Your task to perform on an android device: turn pop-ups on in chrome Image 0: 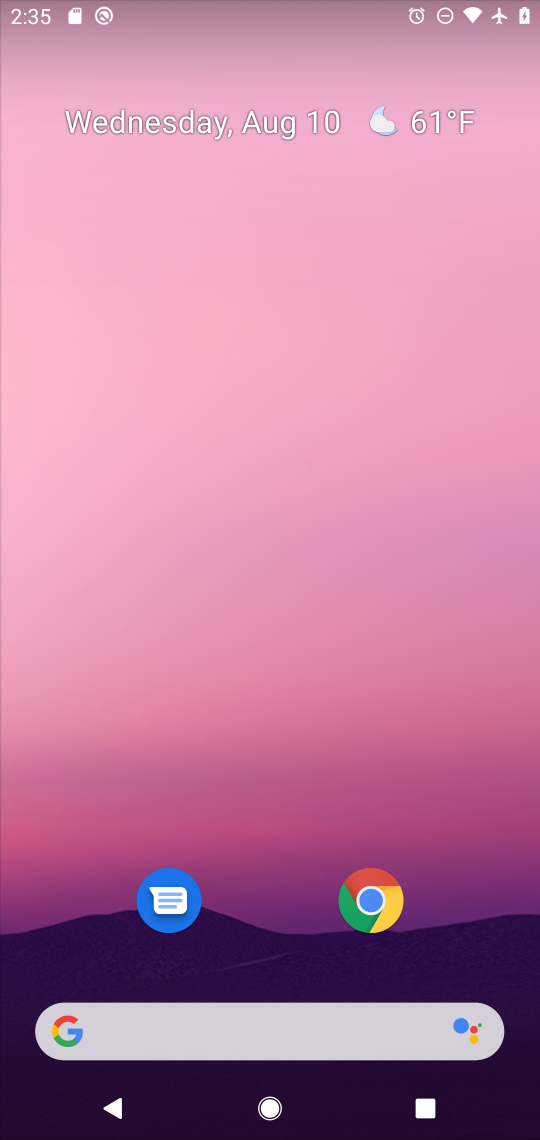
Step 0: drag from (318, 822) to (379, 0)
Your task to perform on an android device: turn pop-ups on in chrome Image 1: 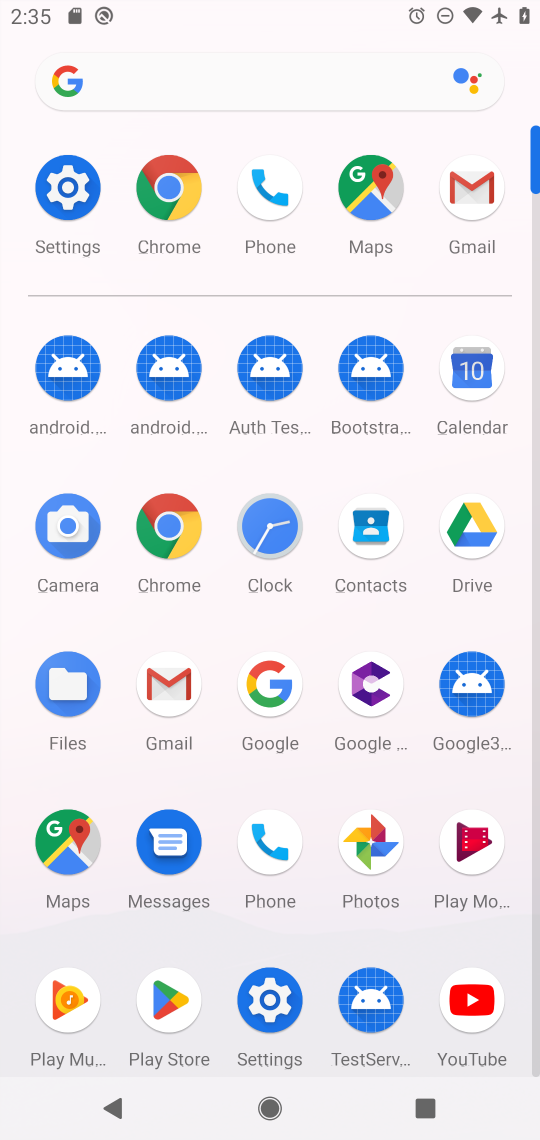
Step 1: click (163, 192)
Your task to perform on an android device: turn pop-ups on in chrome Image 2: 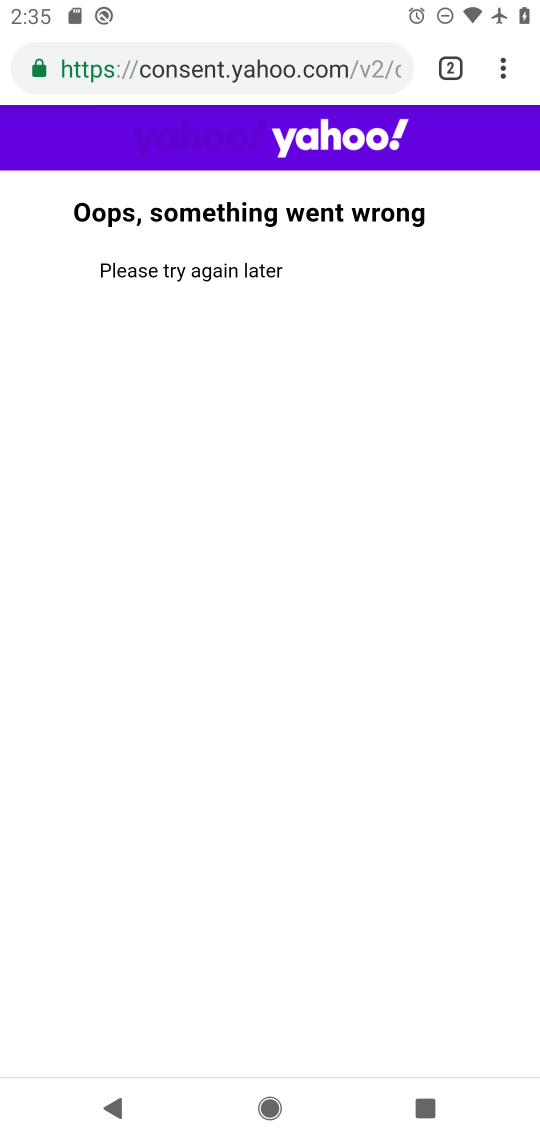
Step 2: click (502, 64)
Your task to perform on an android device: turn pop-ups on in chrome Image 3: 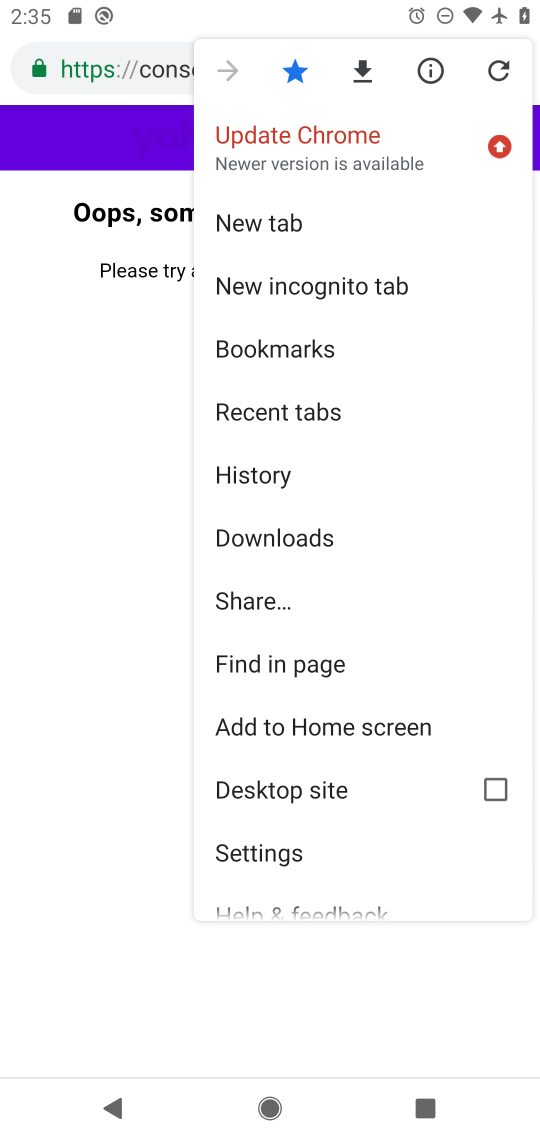
Step 3: click (310, 844)
Your task to perform on an android device: turn pop-ups on in chrome Image 4: 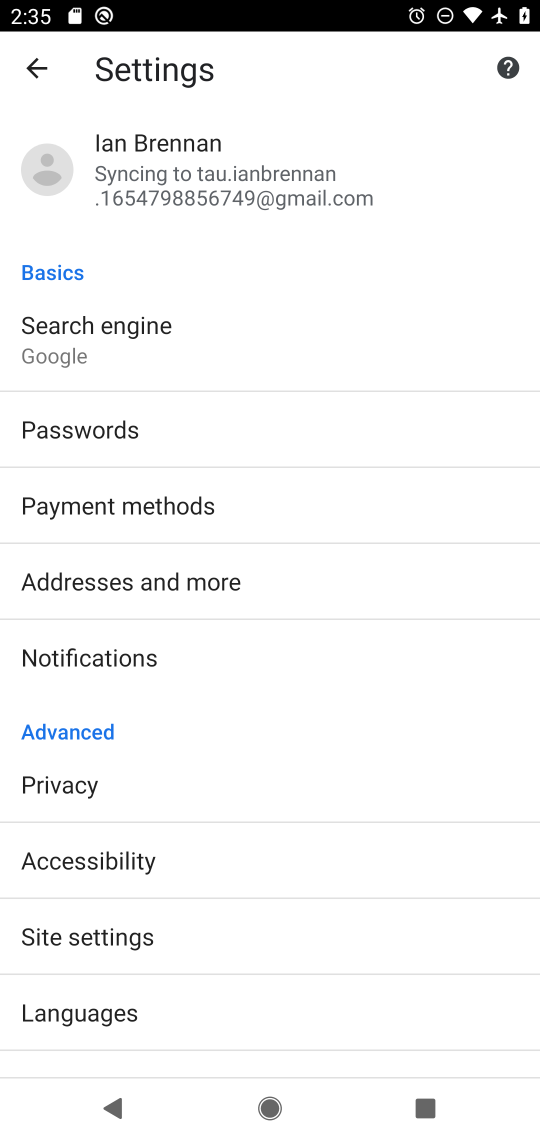
Step 4: click (310, 930)
Your task to perform on an android device: turn pop-ups on in chrome Image 5: 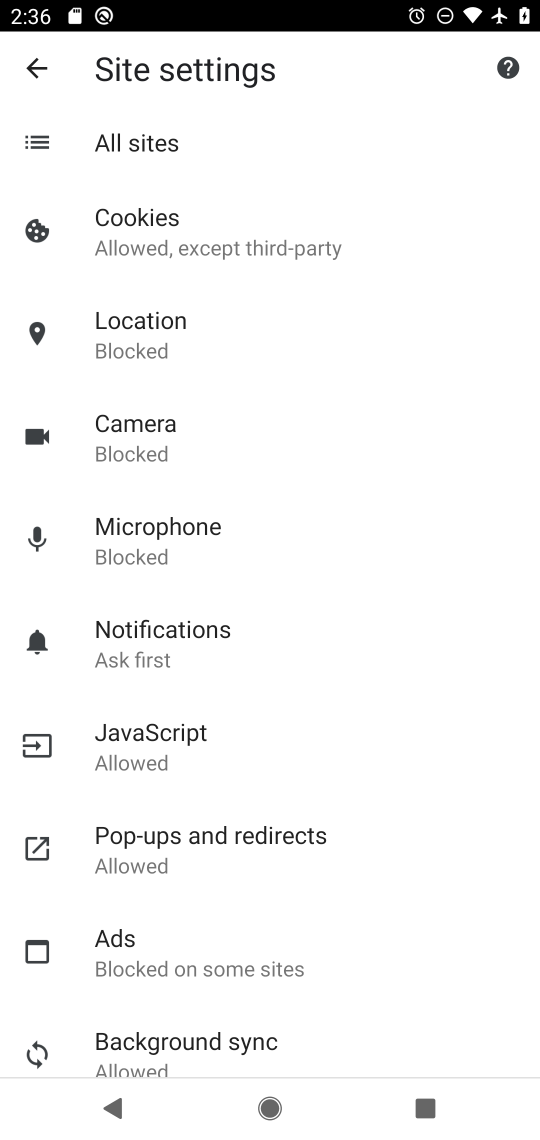
Step 5: click (318, 839)
Your task to perform on an android device: turn pop-ups on in chrome Image 6: 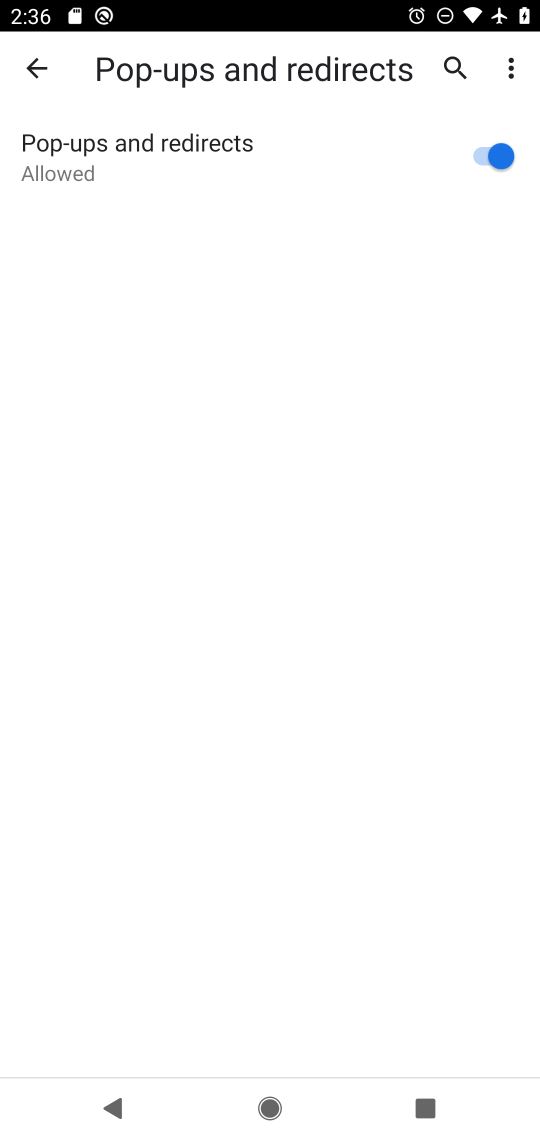
Step 6: task complete